Your task to perform on an android device: star an email in the gmail app Image 0: 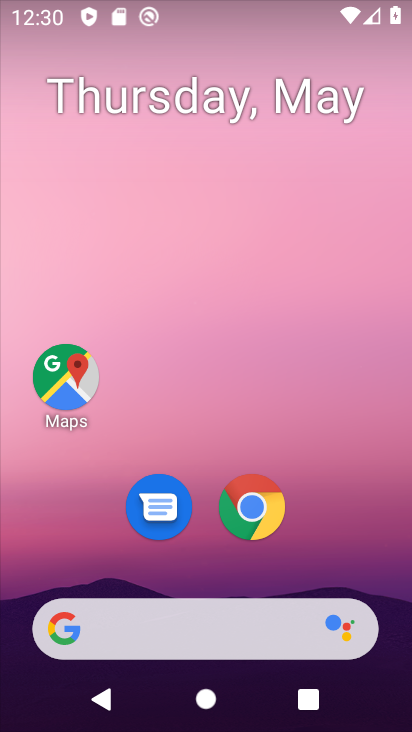
Step 0: drag from (195, 551) to (123, 0)
Your task to perform on an android device: star an email in the gmail app Image 1: 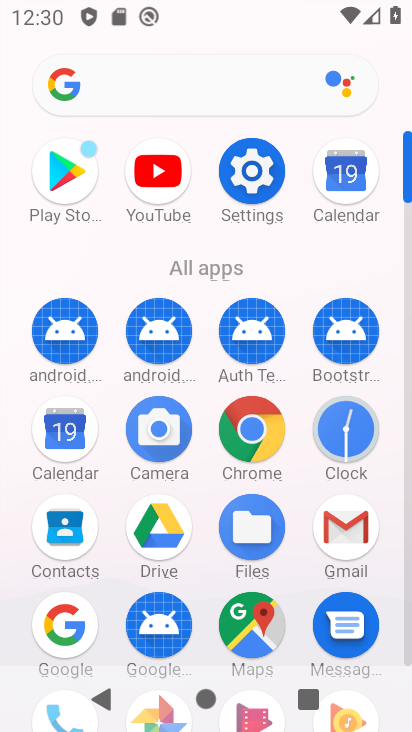
Step 1: drag from (207, 614) to (152, 286)
Your task to perform on an android device: star an email in the gmail app Image 2: 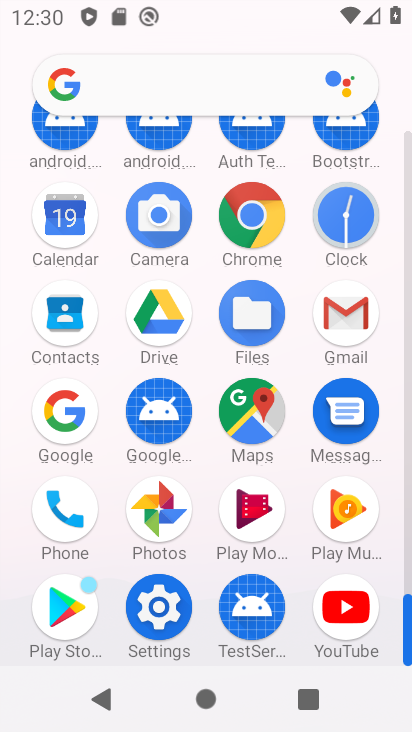
Step 2: click (348, 321)
Your task to perform on an android device: star an email in the gmail app Image 3: 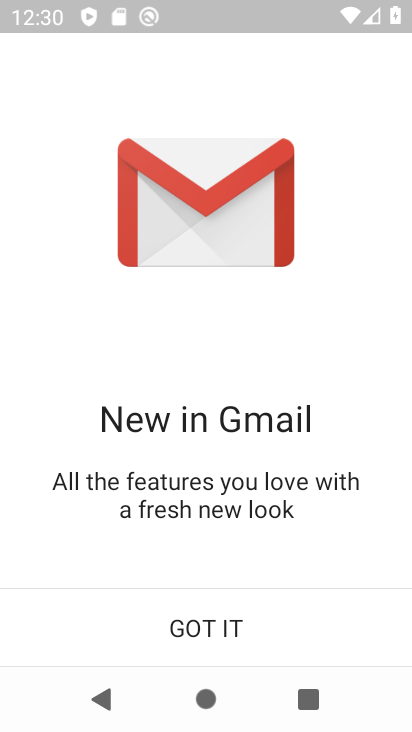
Step 3: click (210, 624)
Your task to perform on an android device: star an email in the gmail app Image 4: 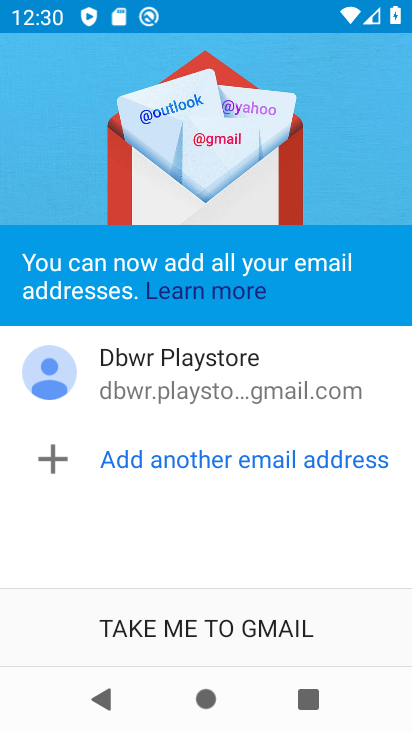
Step 4: click (210, 624)
Your task to perform on an android device: star an email in the gmail app Image 5: 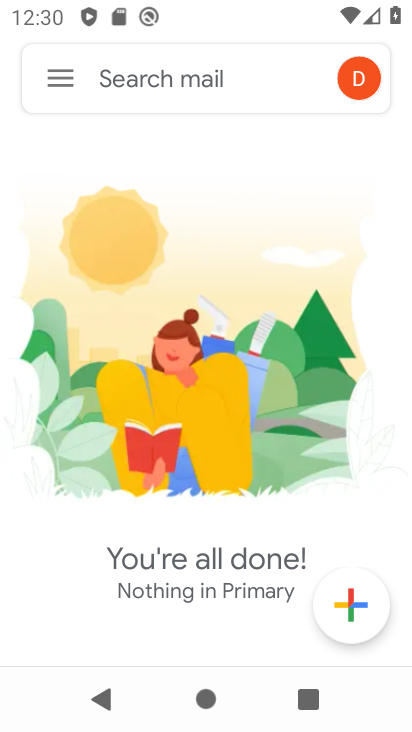
Step 5: click (60, 78)
Your task to perform on an android device: star an email in the gmail app Image 6: 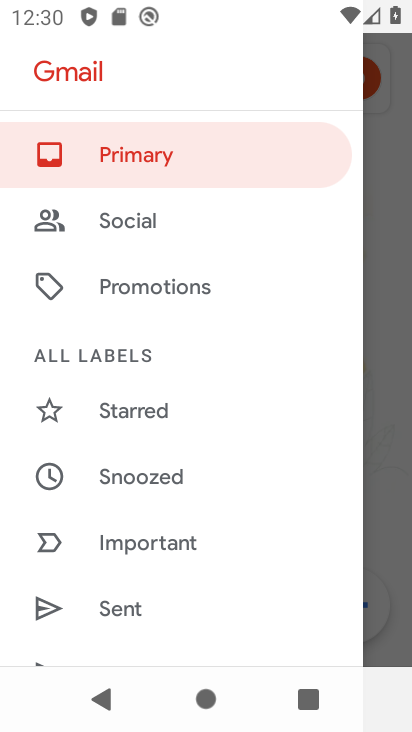
Step 6: drag from (194, 588) to (175, 277)
Your task to perform on an android device: star an email in the gmail app Image 7: 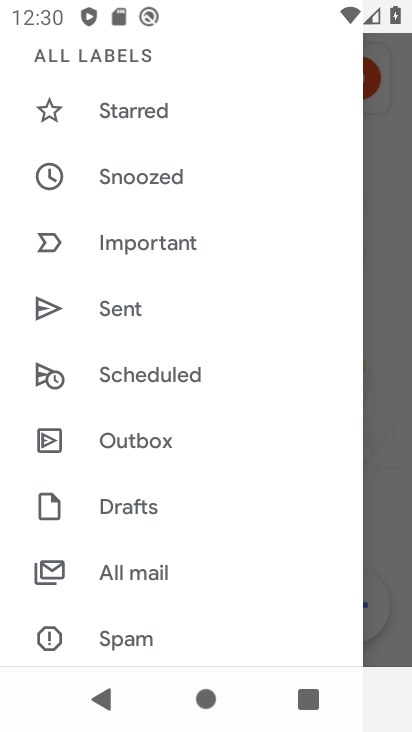
Step 7: click (143, 571)
Your task to perform on an android device: star an email in the gmail app Image 8: 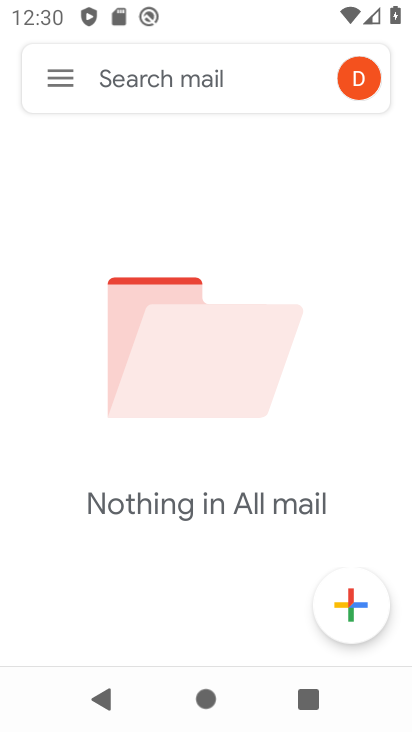
Step 8: task complete